Your task to perform on an android device: Search for pizza restaurants on Maps Image 0: 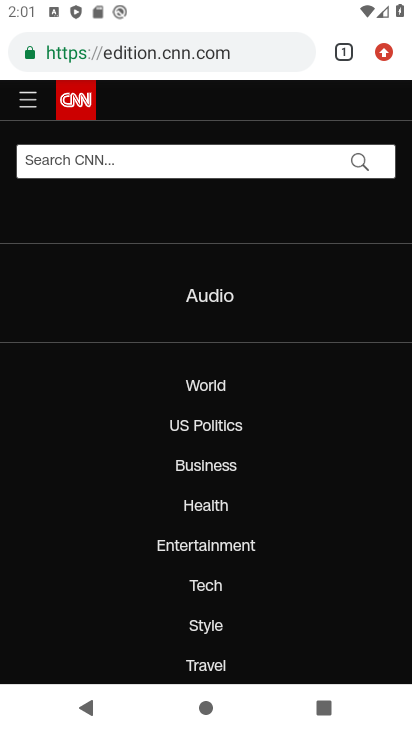
Step 0: press home button
Your task to perform on an android device: Search for pizza restaurants on Maps Image 1: 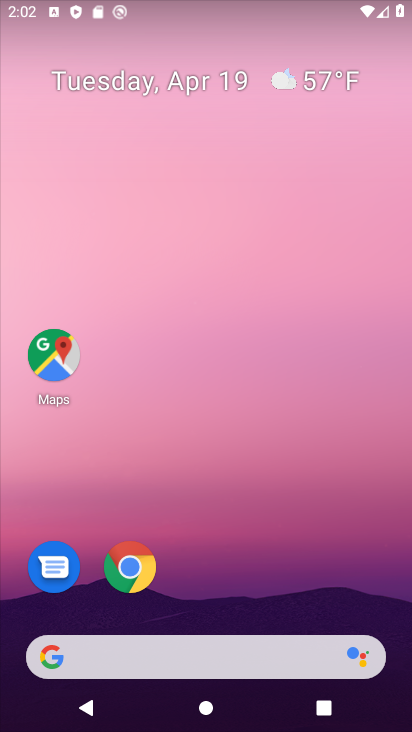
Step 1: click (51, 351)
Your task to perform on an android device: Search for pizza restaurants on Maps Image 2: 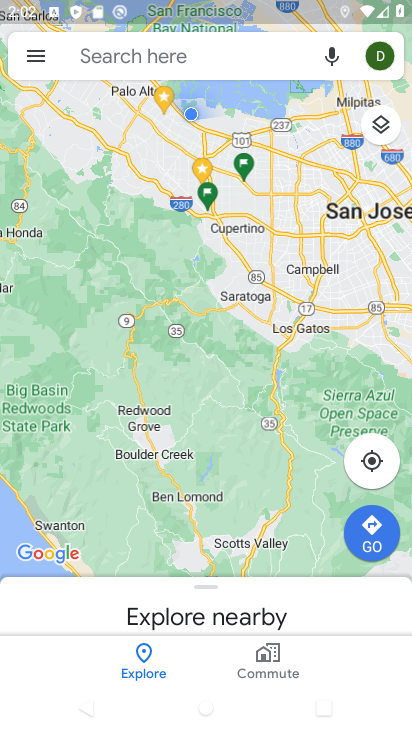
Step 2: click (130, 52)
Your task to perform on an android device: Search for pizza restaurants on Maps Image 3: 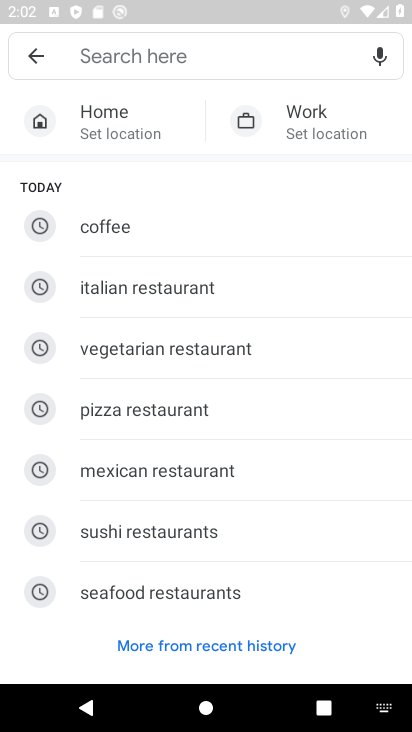
Step 3: type "pizza restaurants"
Your task to perform on an android device: Search for pizza restaurants on Maps Image 4: 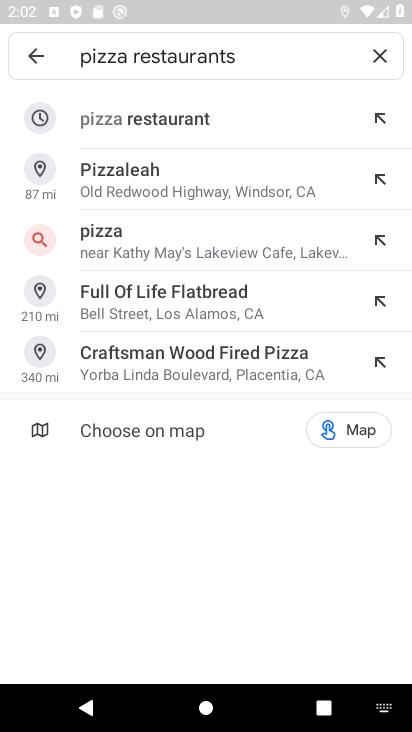
Step 4: click (146, 127)
Your task to perform on an android device: Search for pizza restaurants on Maps Image 5: 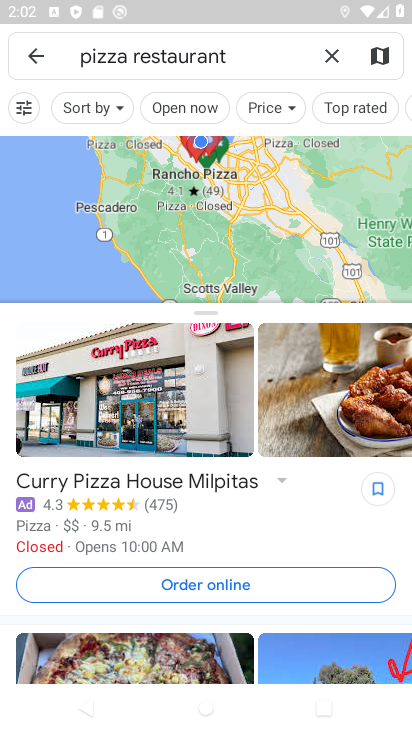
Step 5: task complete